Your task to perform on an android device: Toggle the flashlight Image 0: 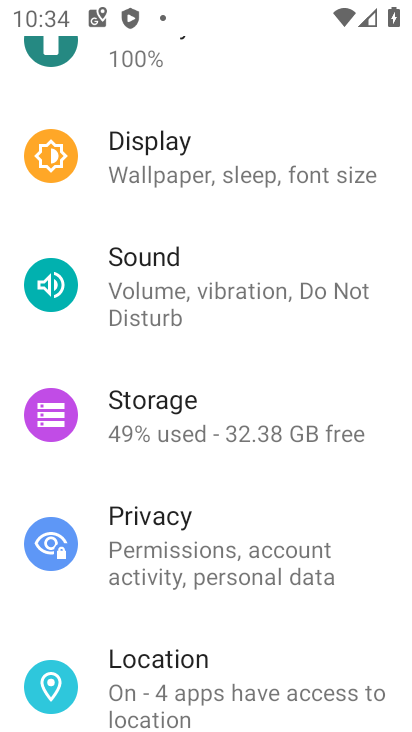
Step 0: drag from (286, 36) to (295, 502)
Your task to perform on an android device: Toggle the flashlight Image 1: 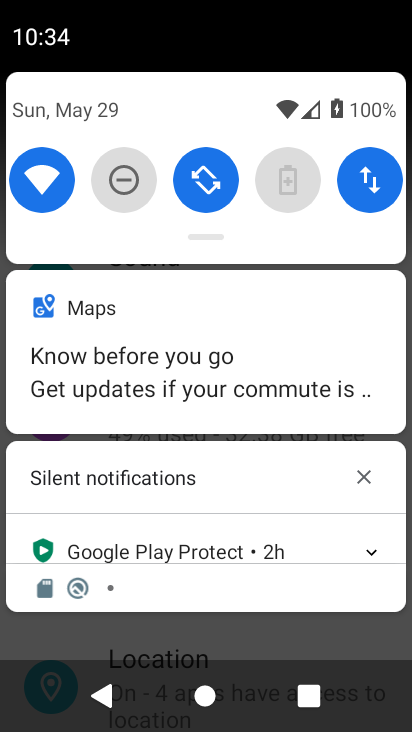
Step 1: task complete